Your task to perform on an android device: turn on airplane mode Image 0: 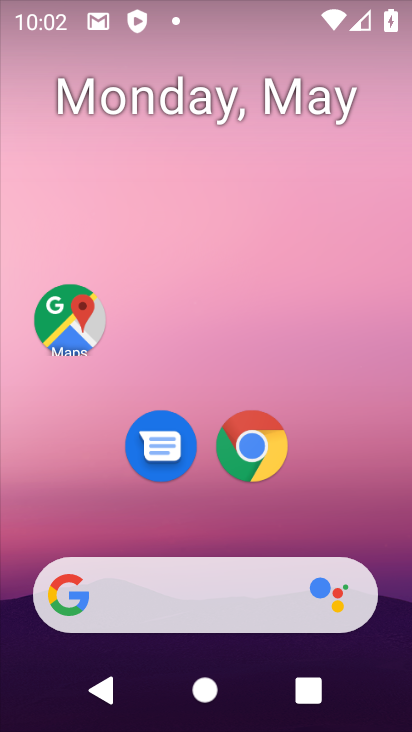
Step 0: drag from (353, 16) to (398, 603)
Your task to perform on an android device: turn on airplane mode Image 1: 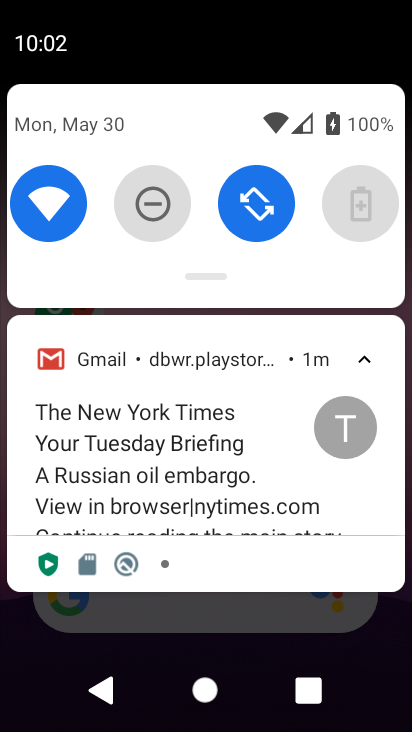
Step 1: drag from (225, 269) to (254, 678)
Your task to perform on an android device: turn on airplane mode Image 2: 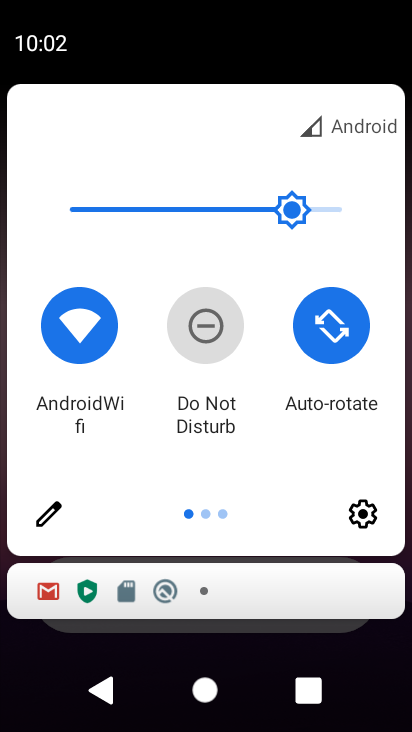
Step 2: drag from (394, 310) to (13, 511)
Your task to perform on an android device: turn on airplane mode Image 3: 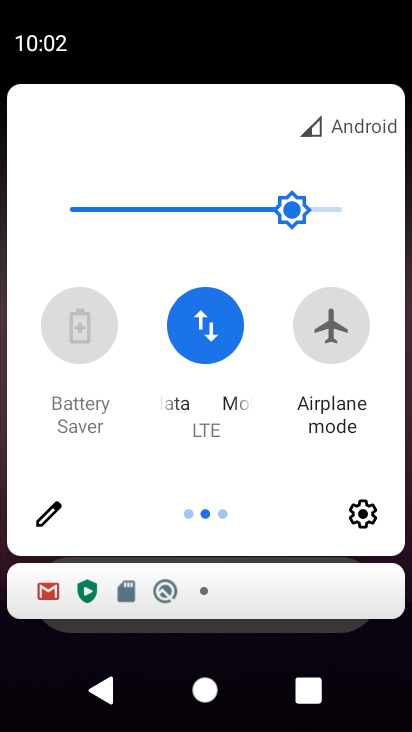
Step 3: click (361, 317)
Your task to perform on an android device: turn on airplane mode Image 4: 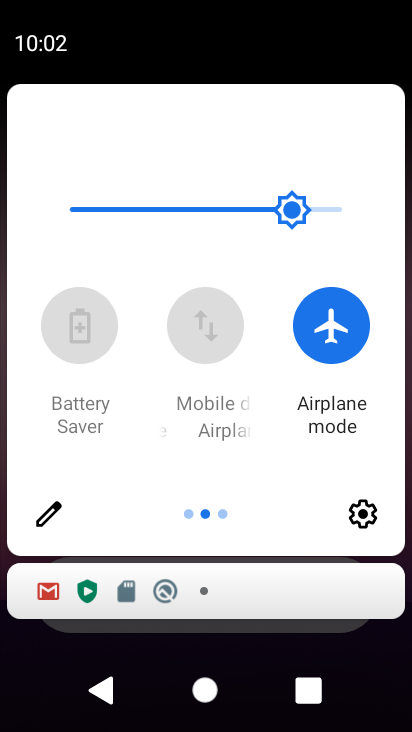
Step 4: task complete